Your task to perform on an android device: Open sound settings Image 0: 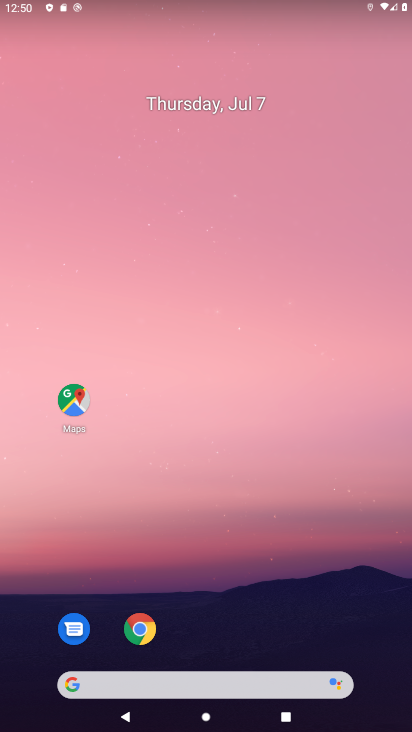
Step 0: drag from (202, 650) to (183, 131)
Your task to perform on an android device: Open sound settings Image 1: 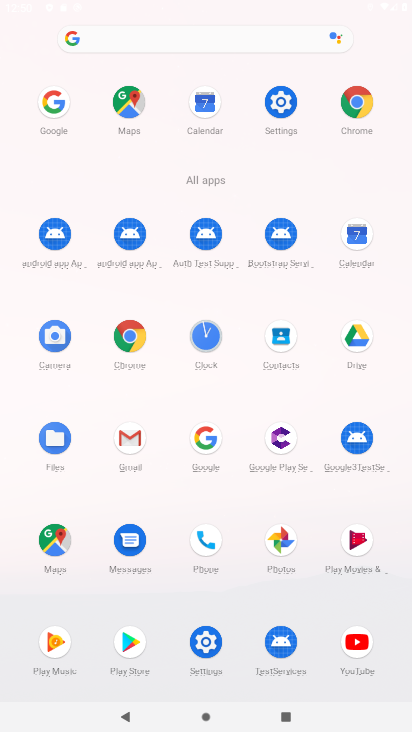
Step 1: click (279, 97)
Your task to perform on an android device: Open sound settings Image 2: 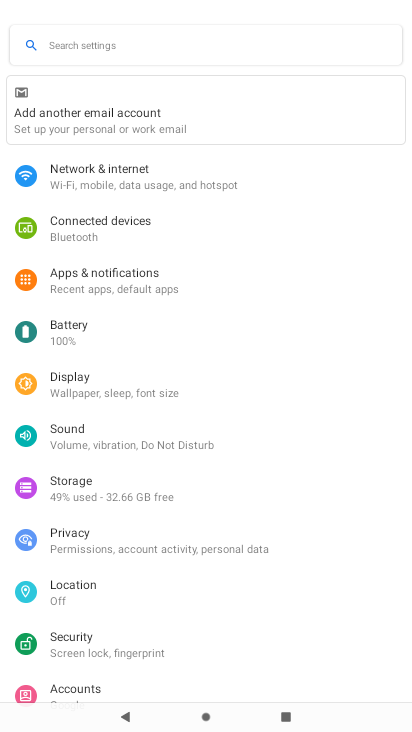
Step 2: click (85, 430)
Your task to perform on an android device: Open sound settings Image 3: 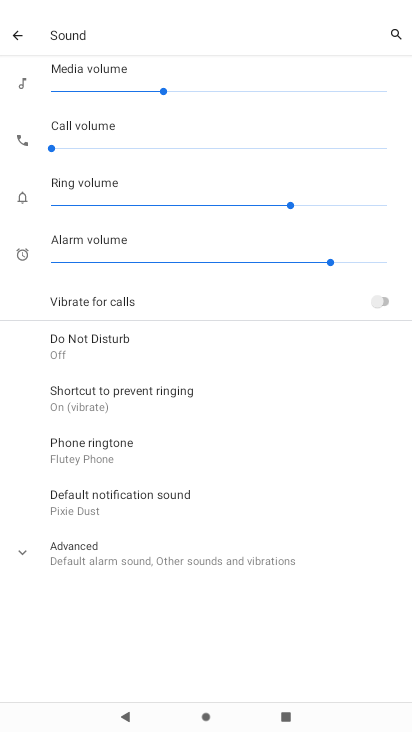
Step 3: task complete